Your task to perform on an android device: change the clock display to show seconds Image 0: 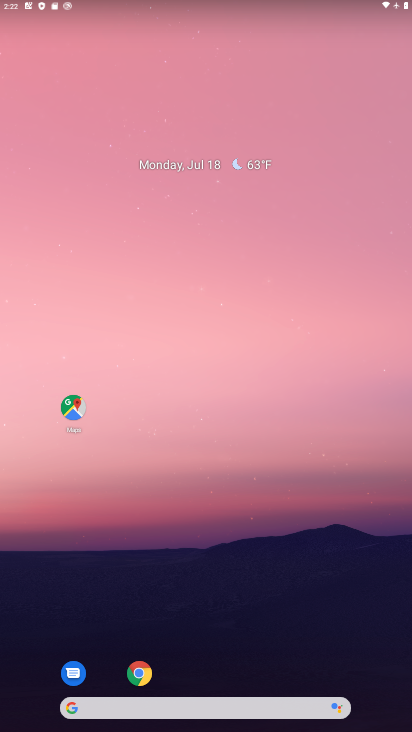
Step 0: drag from (248, 648) to (265, 198)
Your task to perform on an android device: change the clock display to show seconds Image 1: 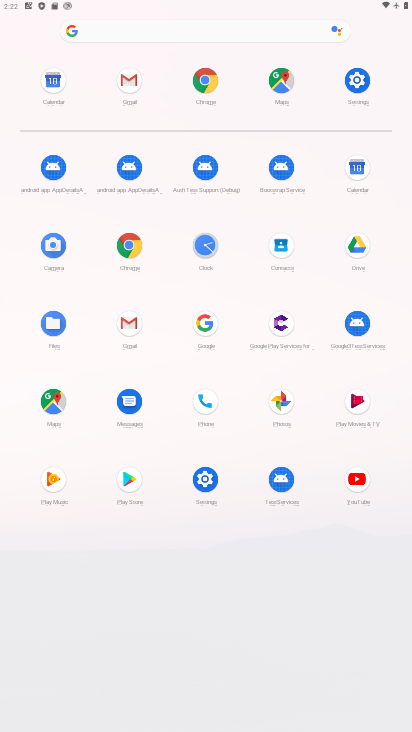
Step 1: click (210, 241)
Your task to perform on an android device: change the clock display to show seconds Image 2: 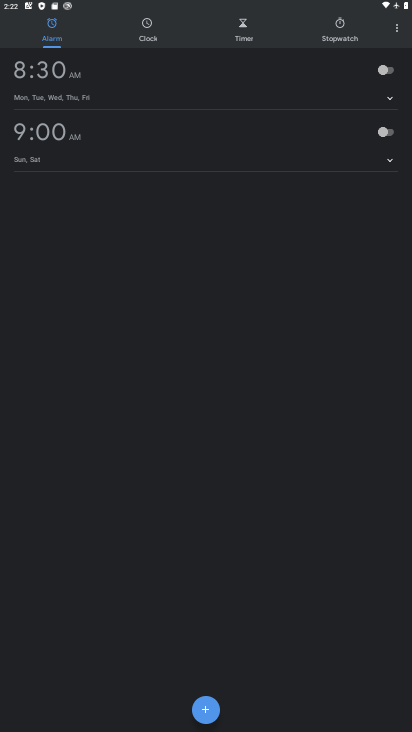
Step 2: click (400, 24)
Your task to perform on an android device: change the clock display to show seconds Image 3: 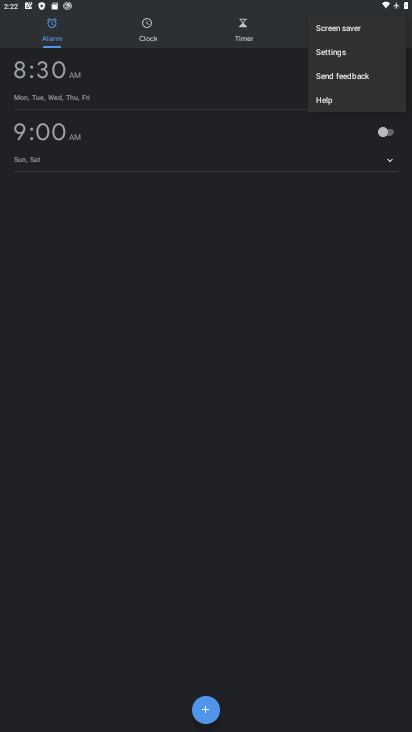
Step 3: click (346, 46)
Your task to perform on an android device: change the clock display to show seconds Image 4: 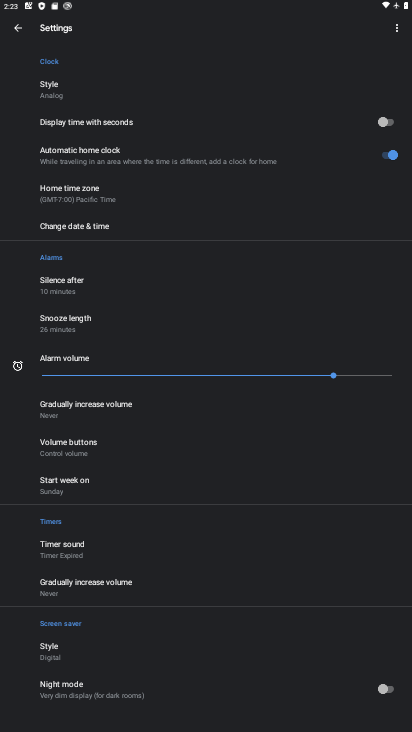
Step 4: click (388, 128)
Your task to perform on an android device: change the clock display to show seconds Image 5: 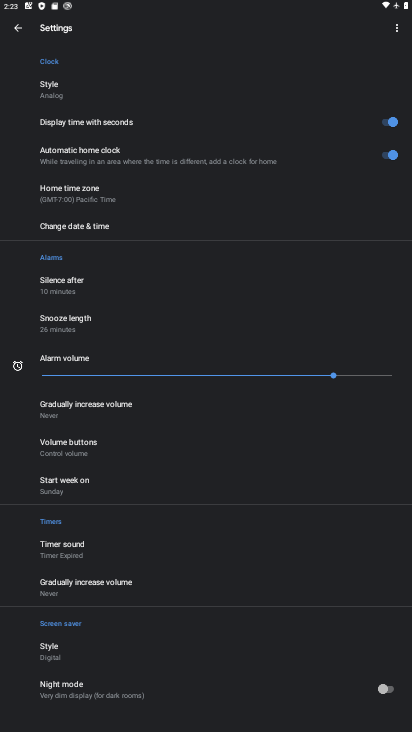
Step 5: task complete